Your task to perform on an android device: add a label to a message in the gmail app Image 0: 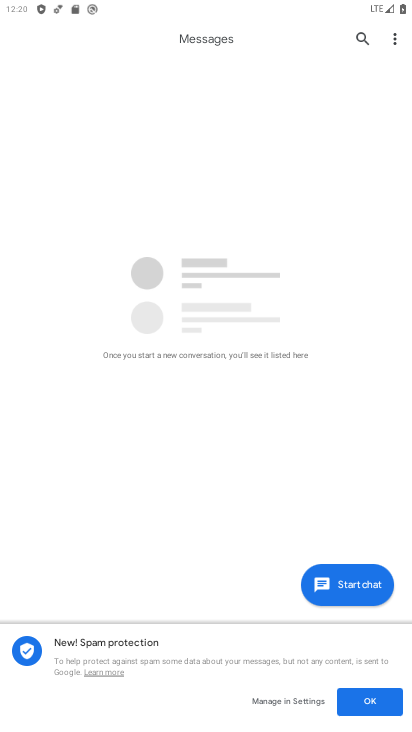
Step 0: press back button
Your task to perform on an android device: add a label to a message in the gmail app Image 1: 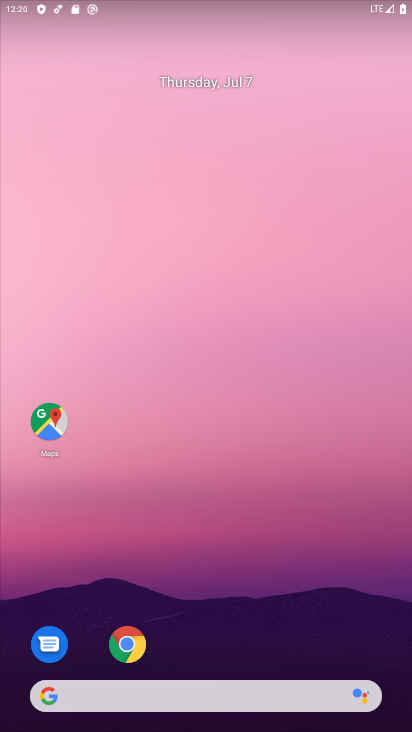
Step 1: drag from (385, 560) to (357, 230)
Your task to perform on an android device: add a label to a message in the gmail app Image 2: 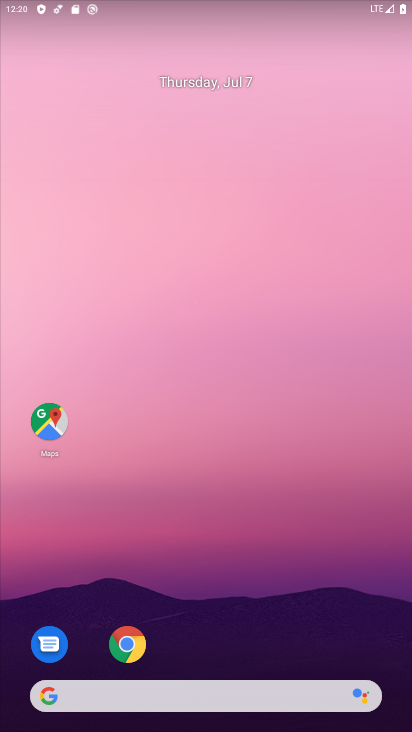
Step 2: drag from (397, 718) to (325, 104)
Your task to perform on an android device: add a label to a message in the gmail app Image 3: 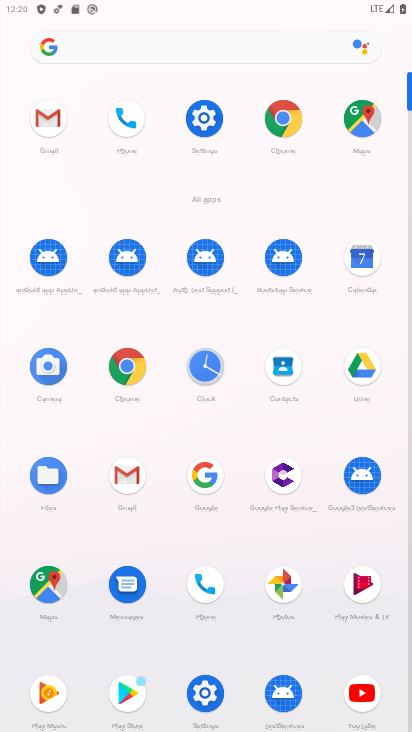
Step 3: click (136, 467)
Your task to perform on an android device: add a label to a message in the gmail app Image 4: 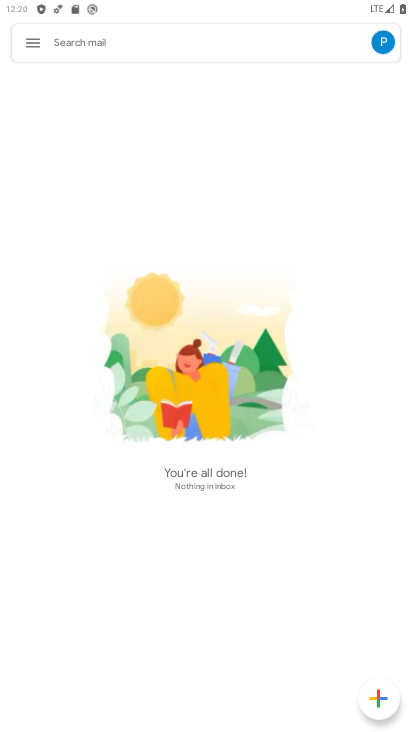
Step 4: click (33, 41)
Your task to perform on an android device: add a label to a message in the gmail app Image 5: 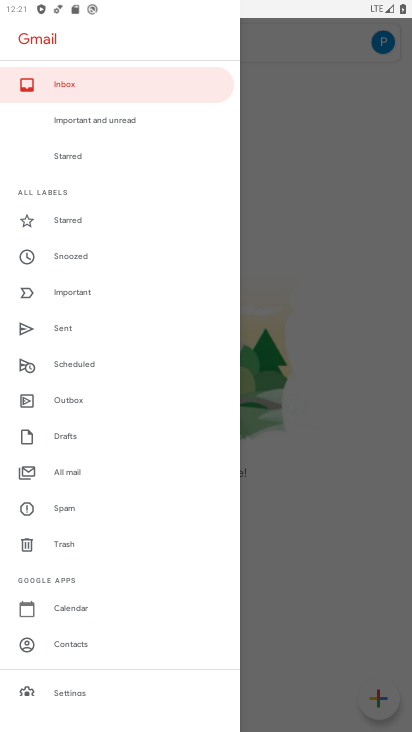
Step 5: drag from (162, 683) to (215, 255)
Your task to perform on an android device: add a label to a message in the gmail app Image 6: 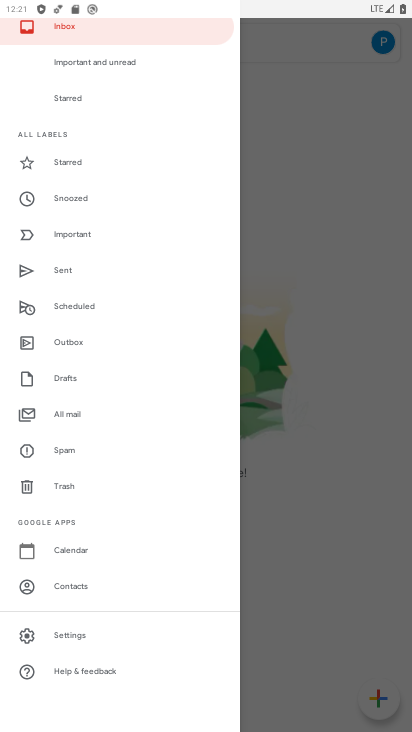
Step 6: press back button
Your task to perform on an android device: add a label to a message in the gmail app Image 7: 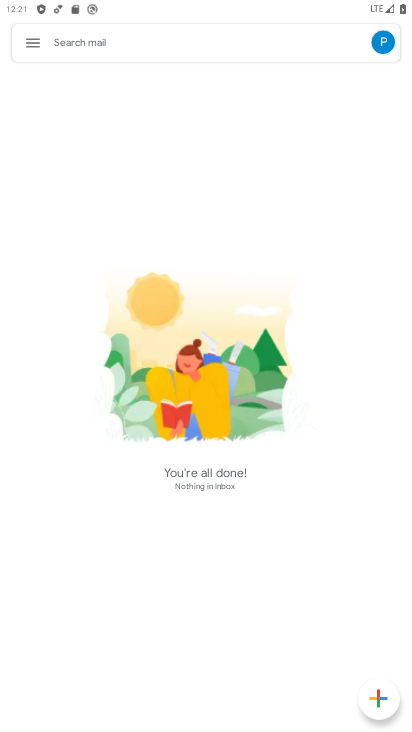
Step 7: click (38, 38)
Your task to perform on an android device: add a label to a message in the gmail app Image 8: 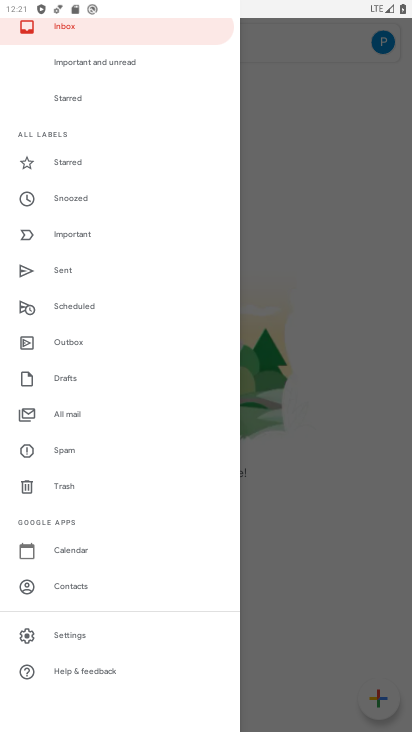
Step 8: click (309, 213)
Your task to perform on an android device: add a label to a message in the gmail app Image 9: 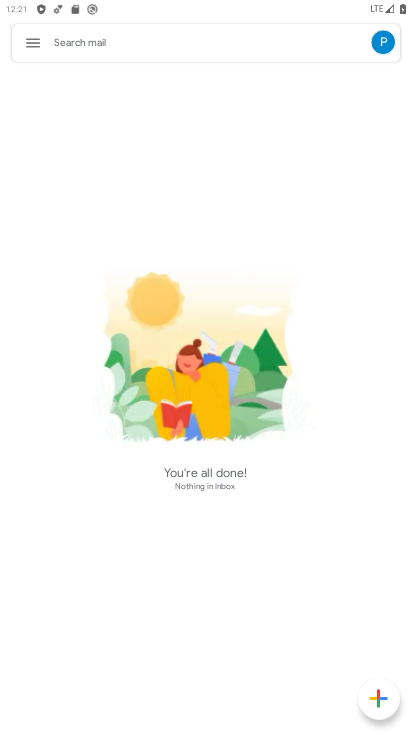
Step 9: task complete